Your task to perform on an android device: Open calendar and show me the fourth week of next month Image 0: 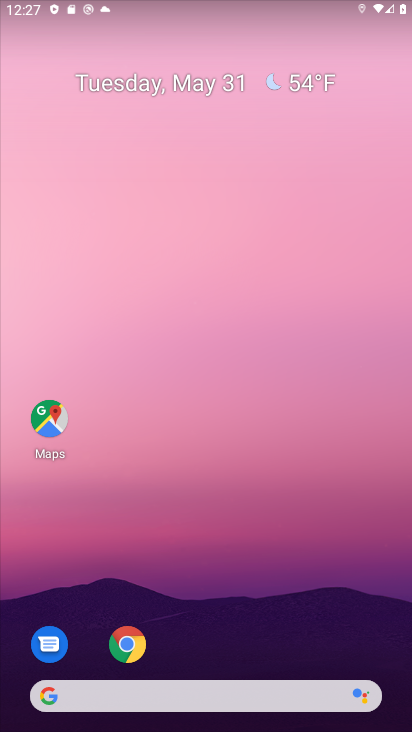
Step 0: press home button
Your task to perform on an android device: Open calendar and show me the fourth week of next month Image 1: 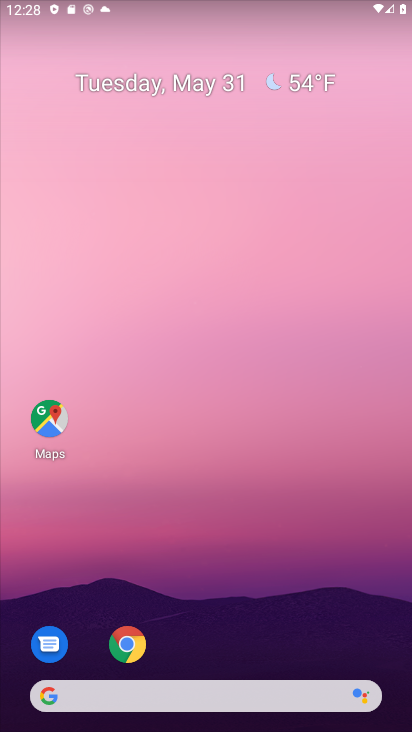
Step 1: drag from (271, 340) to (292, 48)
Your task to perform on an android device: Open calendar and show me the fourth week of next month Image 2: 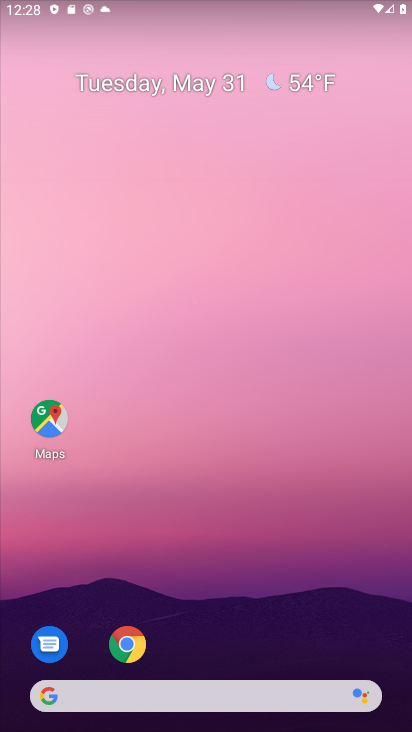
Step 2: drag from (238, 642) to (233, 113)
Your task to perform on an android device: Open calendar and show me the fourth week of next month Image 3: 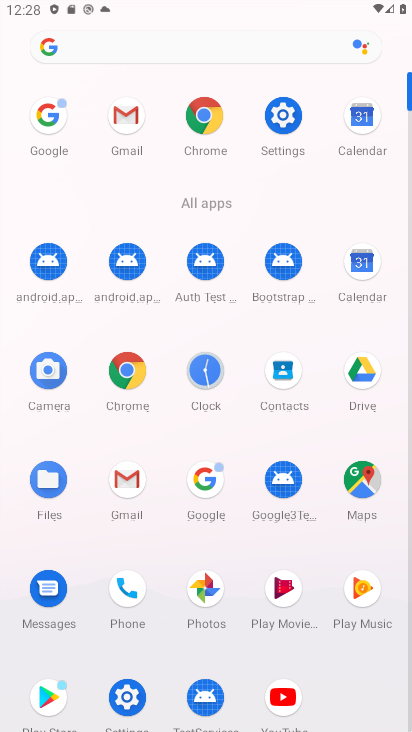
Step 3: click (360, 259)
Your task to perform on an android device: Open calendar and show me the fourth week of next month Image 4: 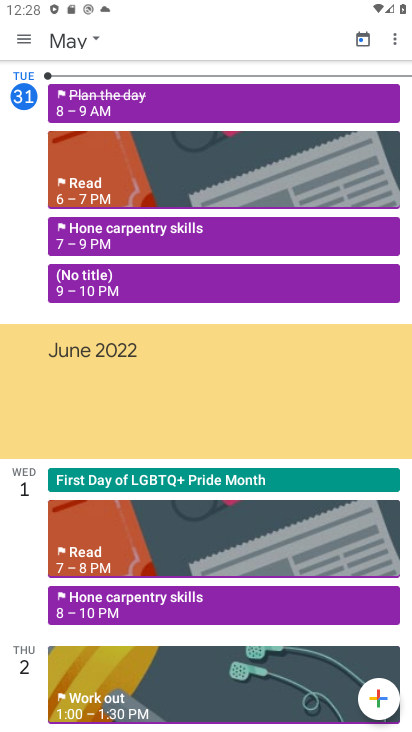
Step 4: click (95, 35)
Your task to perform on an android device: Open calendar and show me the fourth week of next month Image 5: 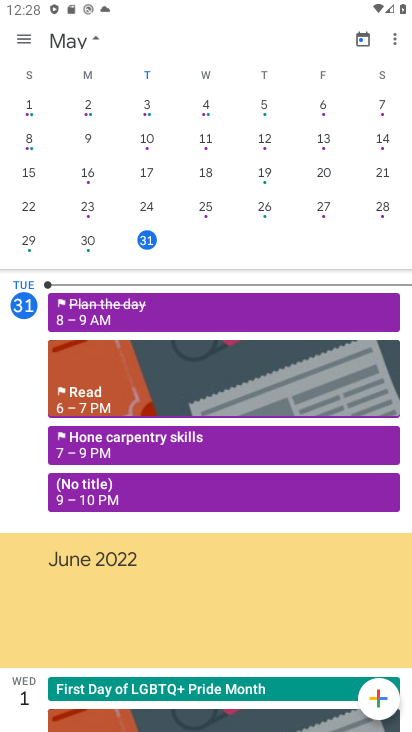
Step 5: drag from (311, 150) to (111, 120)
Your task to perform on an android device: Open calendar and show me the fourth week of next month Image 6: 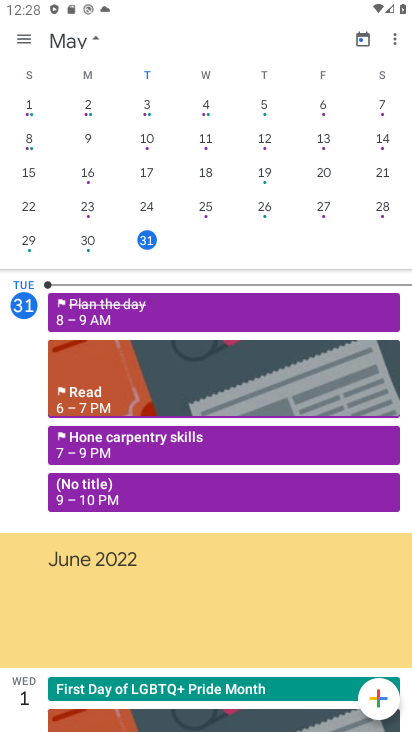
Step 6: drag from (290, 148) to (40, 137)
Your task to perform on an android device: Open calendar and show me the fourth week of next month Image 7: 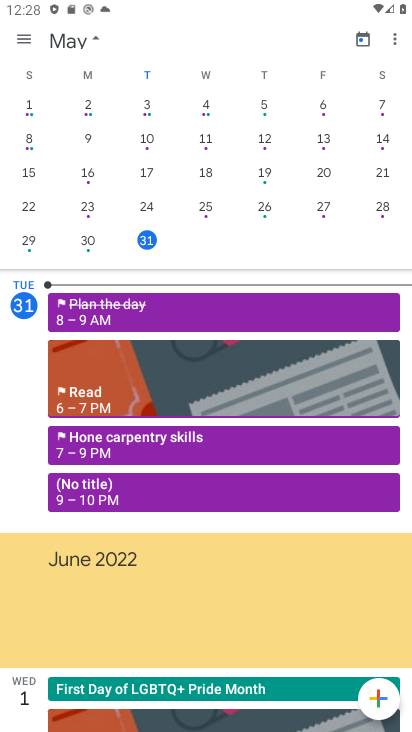
Step 7: drag from (282, 149) to (9, 201)
Your task to perform on an android device: Open calendar and show me the fourth week of next month Image 8: 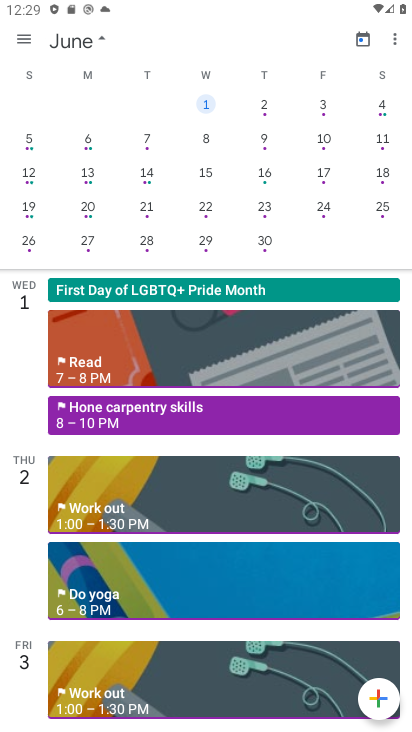
Step 8: click (326, 208)
Your task to perform on an android device: Open calendar and show me the fourth week of next month Image 9: 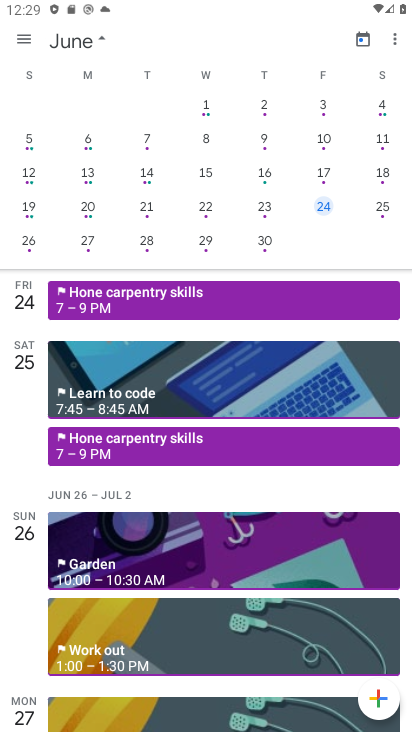
Step 9: task complete